Your task to perform on an android device: Go to location settings Image 0: 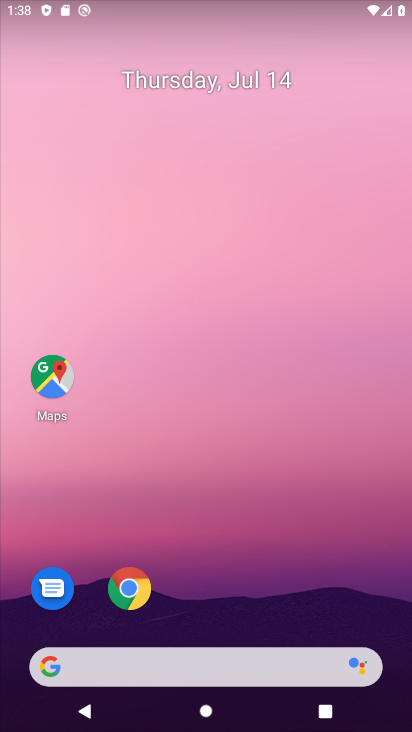
Step 0: click (114, 574)
Your task to perform on an android device: Go to location settings Image 1: 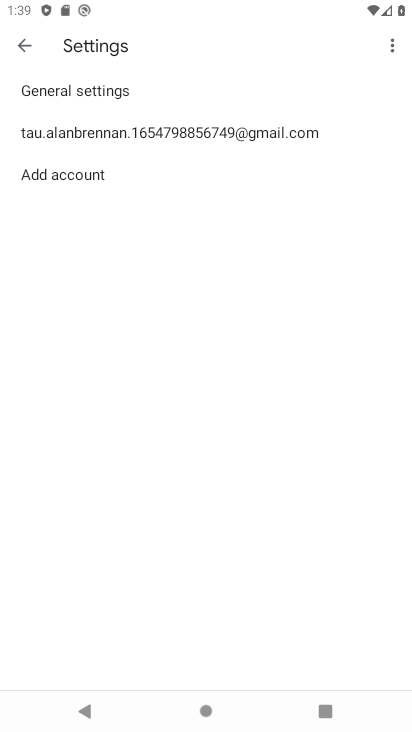
Step 1: press home button
Your task to perform on an android device: Go to location settings Image 2: 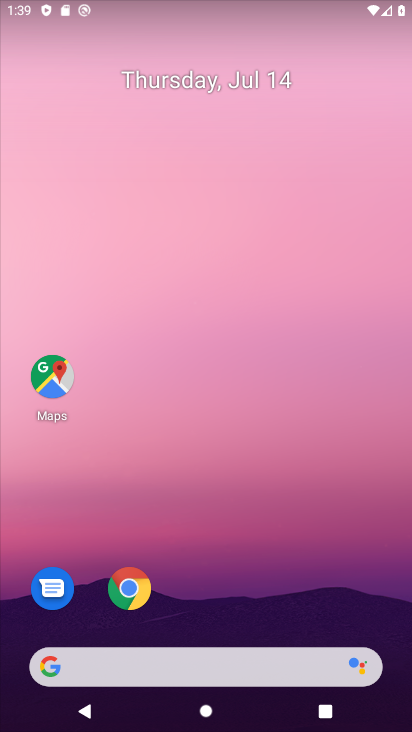
Step 2: drag from (213, 715) to (203, 122)
Your task to perform on an android device: Go to location settings Image 3: 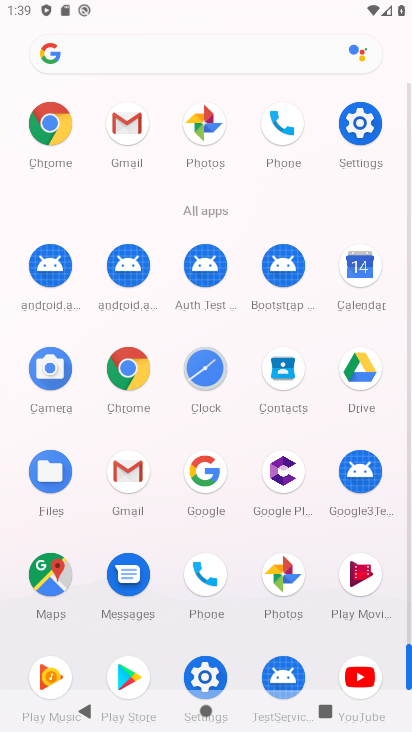
Step 3: click (367, 123)
Your task to perform on an android device: Go to location settings Image 4: 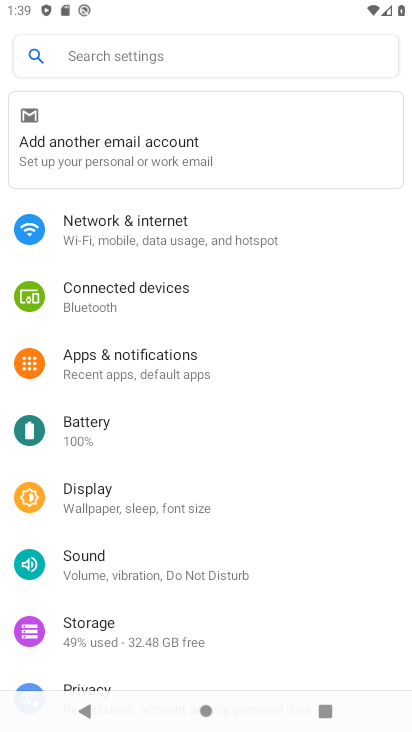
Step 4: drag from (123, 516) to (98, 67)
Your task to perform on an android device: Go to location settings Image 5: 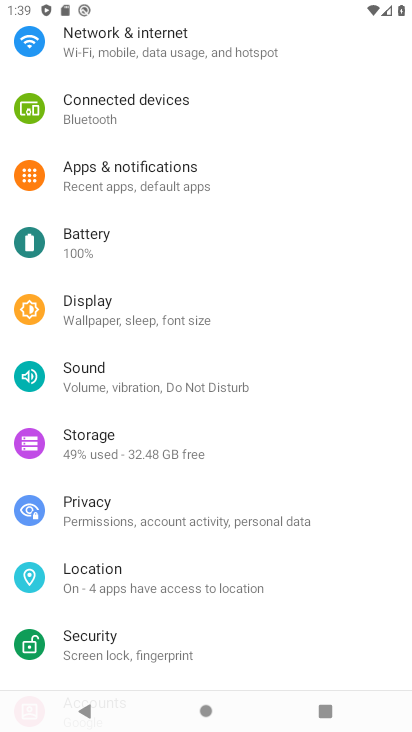
Step 5: click (176, 581)
Your task to perform on an android device: Go to location settings Image 6: 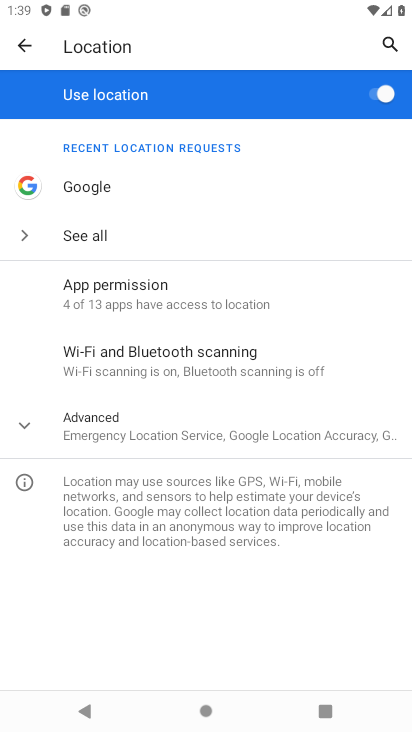
Step 6: task complete